Your task to perform on an android device: check android version Image 0: 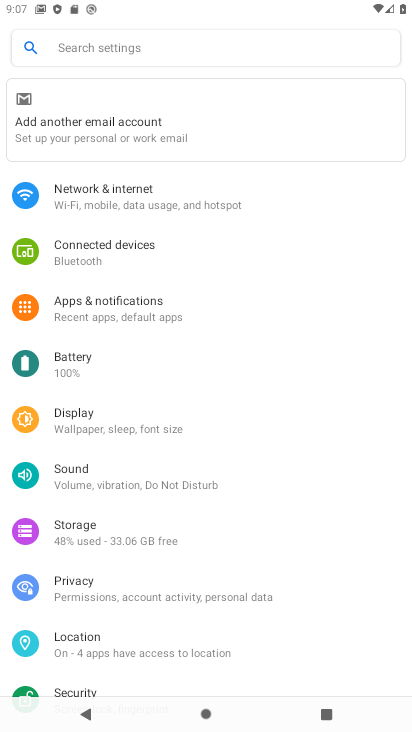
Step 0: drag from (174, 516) to (145, 223)
Your task to perform on an android device: check android version Image 1: 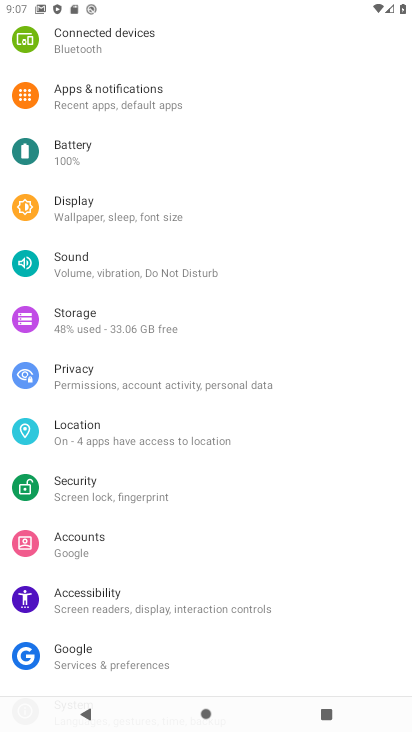
Step 1: drag from (131, 658) to (140, 270)
Your task to perform on an android device: check android version Image 2: 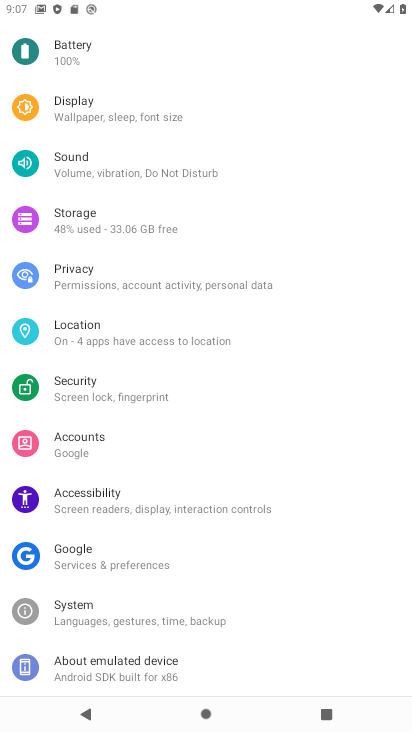
Step 2: click (159, 672)
Your task to perform on an android device: check android version Image 3: 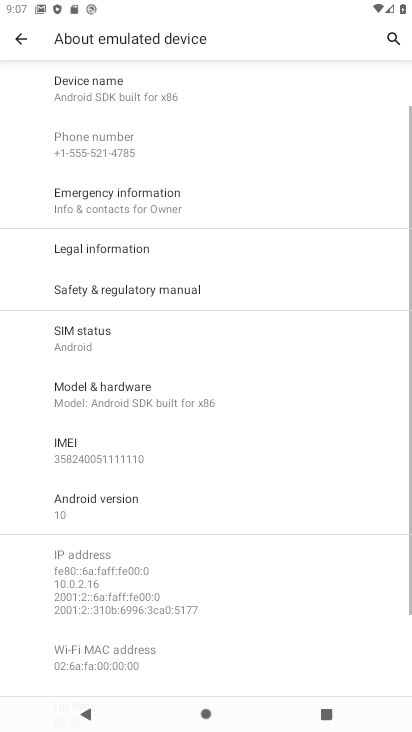
Step 3: click (121, 499)
Your task to perform on an android device: check android version Image 4: 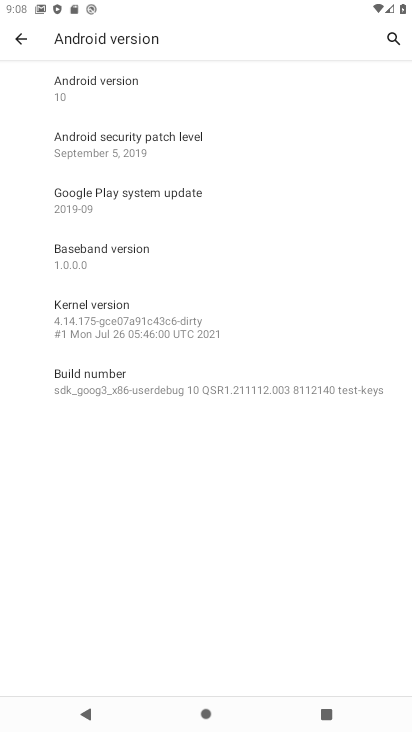
Step 4: task complete